Your task to perform on an android device: set the timer Image 0: 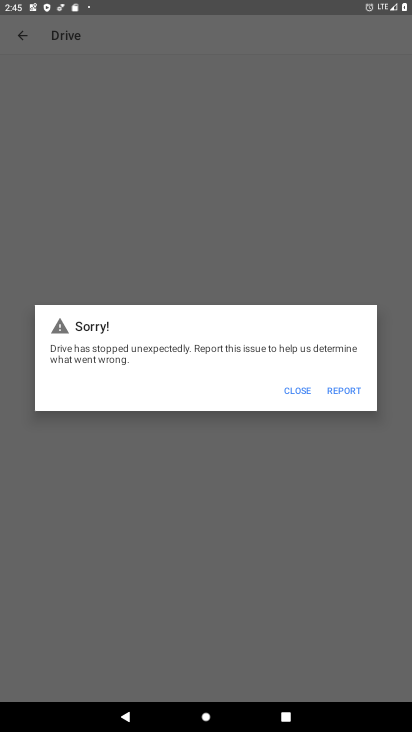
Step 0: press home button
Your task to perform on an android device: set the timer Image 1: 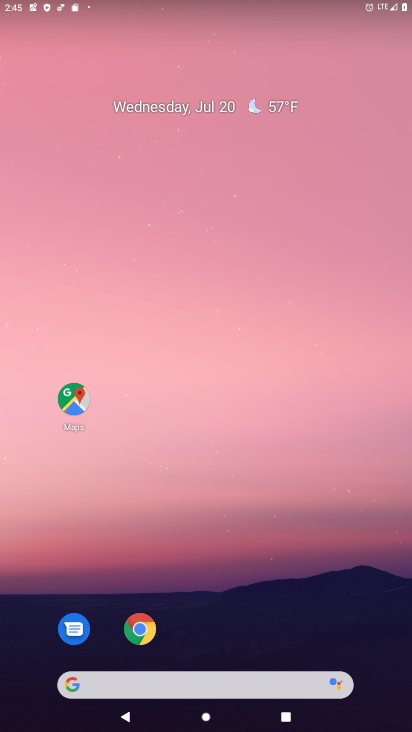
Step 1: drag from (369, 650) to (322, 79)
Your task to perform on an android device: set the timer Image 2: 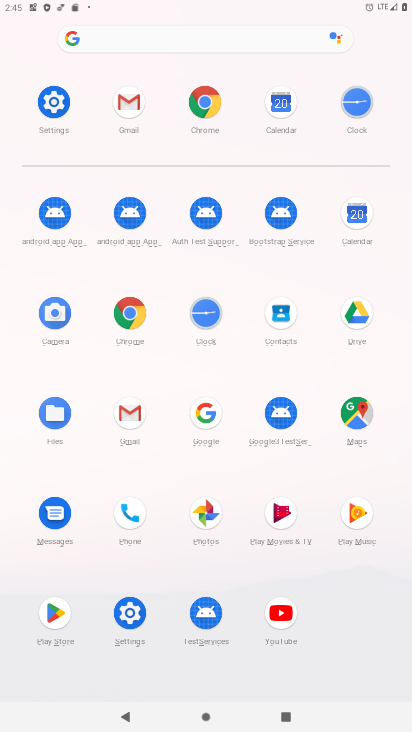
Step 2: click (208, 314)
Your task to perform on an android device: set the timer Image 3: 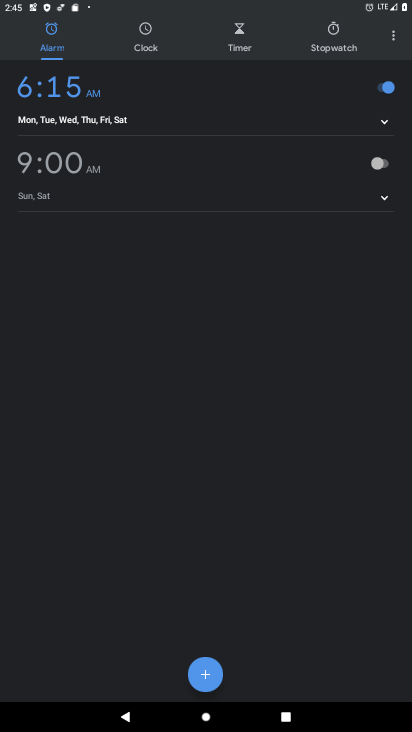
Step 3: click (243, 40)
Your task to perform on an android device: set the timer Image 4: 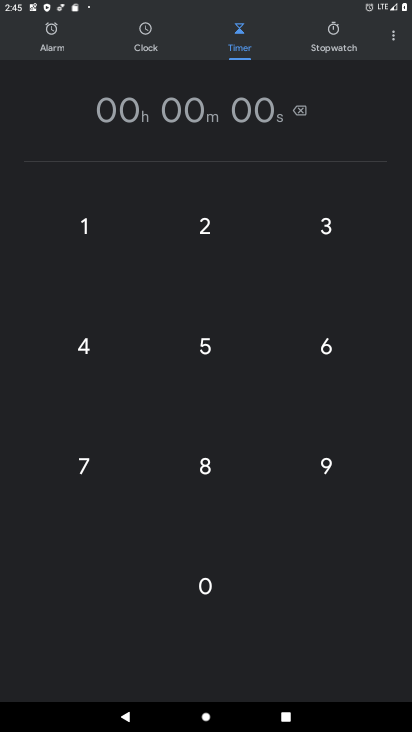
Step 4: click (80, 228)
Your task to perform on an android device: set the timer Image 5: 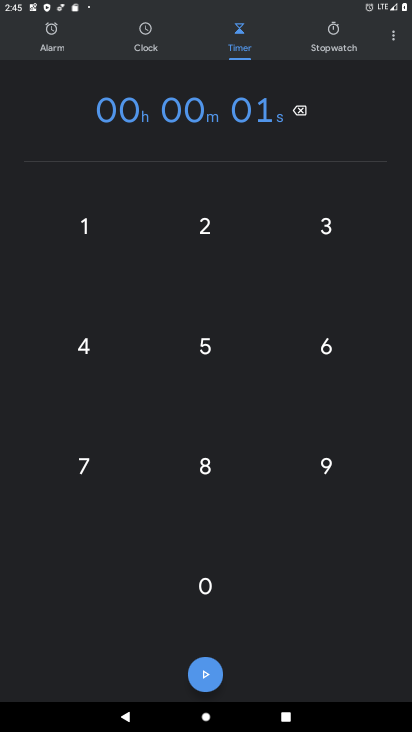
Step 5: click (322, 220)
Your task to perform on an android device: set the timer Image 6: 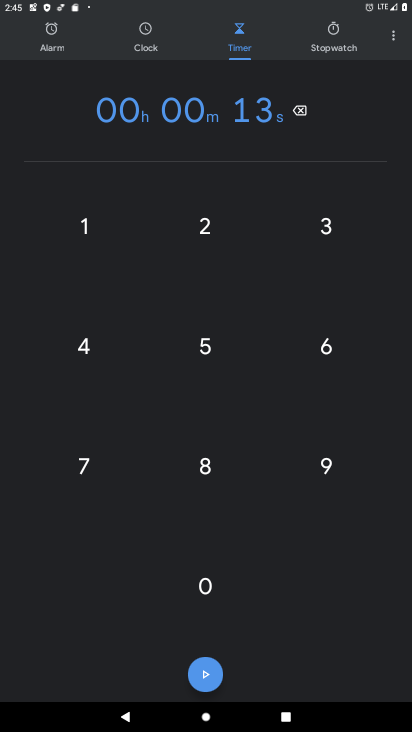
Step 6: click (202, 586)
Your task to perform on an android device: set the timer Image 7: 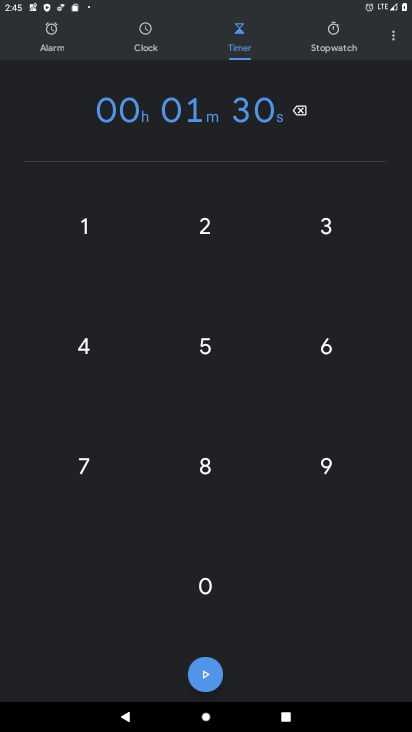
Step 7: click (202, 586)
Your task to perform on an android device: set the timer Image 8: 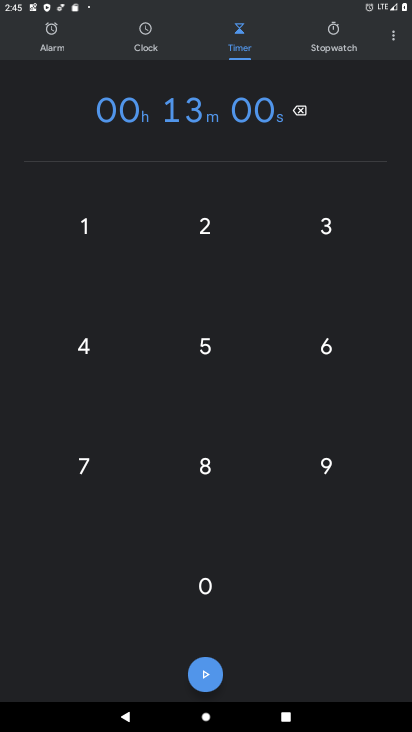
Step 8: click (202, 586)
Your task to perform on an android device: set the timer Image 9: 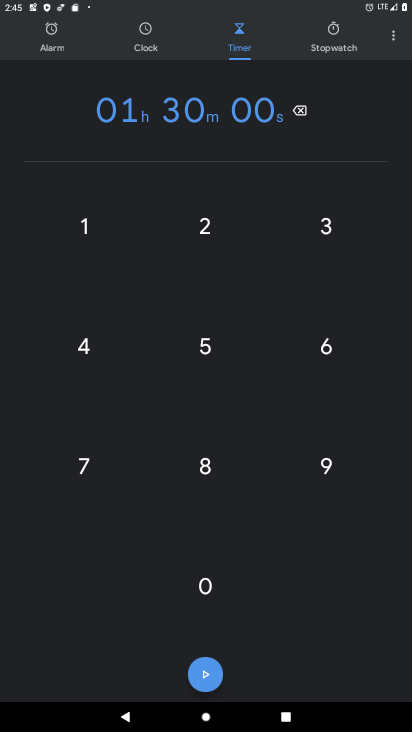
Step 9: task complete